Your task to perform on an android device: Open ESPN.com Image 0: 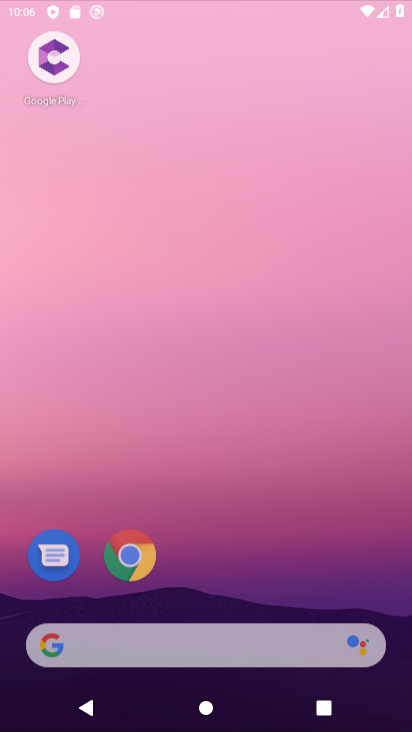
Step 0: click (36, 351)
Your task to perform on an android device: Open ESPN.com Image 1: 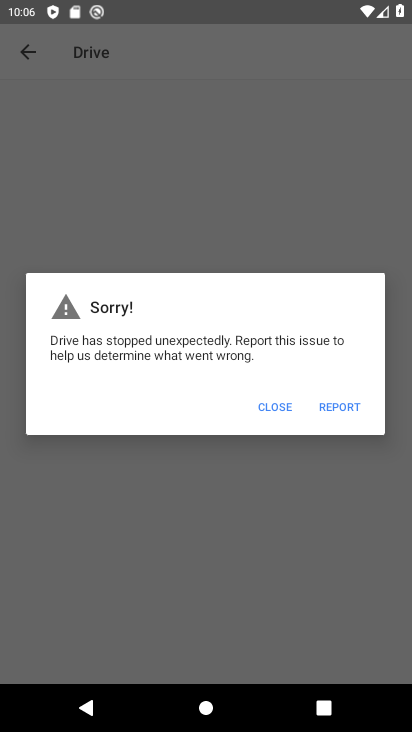
Step 1: press home button
Your task to perform on an android device: Open ESPN.com Image 2: 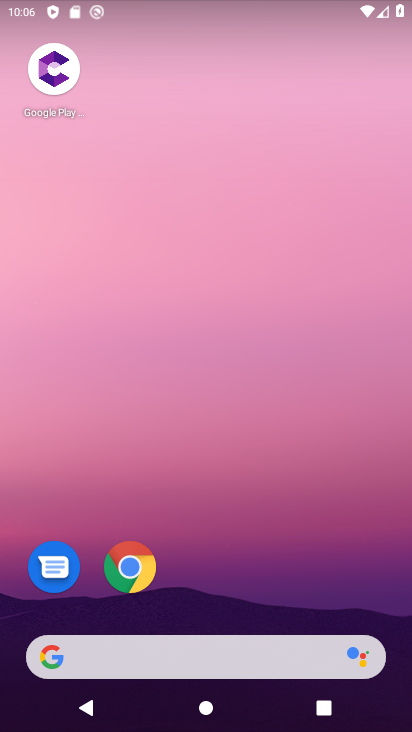
Step 2: click (145, 574)
Your task to perform on an android device: Open ESPN.com Image 3: 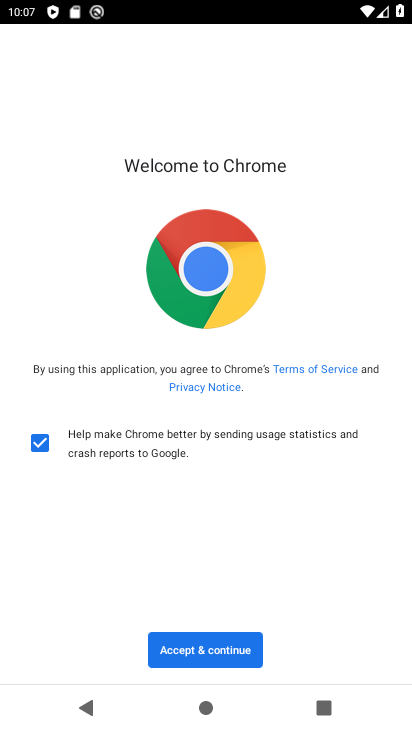
Step 3: click (211, 657)
Your task to perform on an android device: Open ESPN.com Image 4: 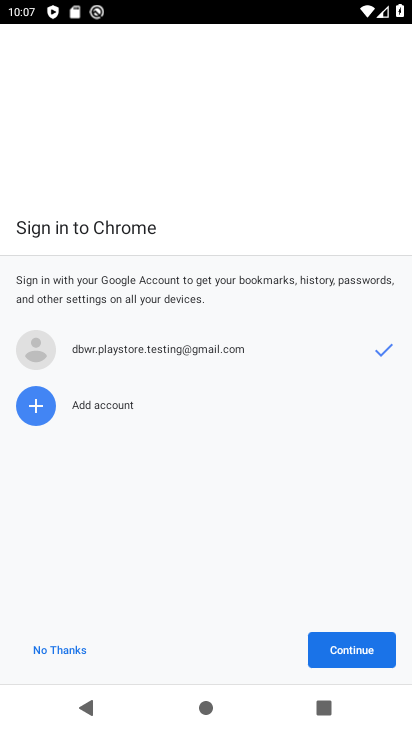
Step 4: click (355, 651)
Your task to perform on an android device: Open ESPN.com Image 5: 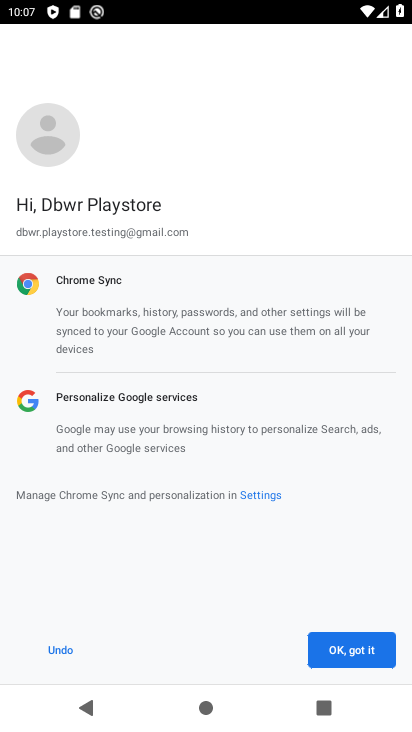
Step 5: click (340, 647)
Your task to perform on an android device: Open ESPN.com Image 6: 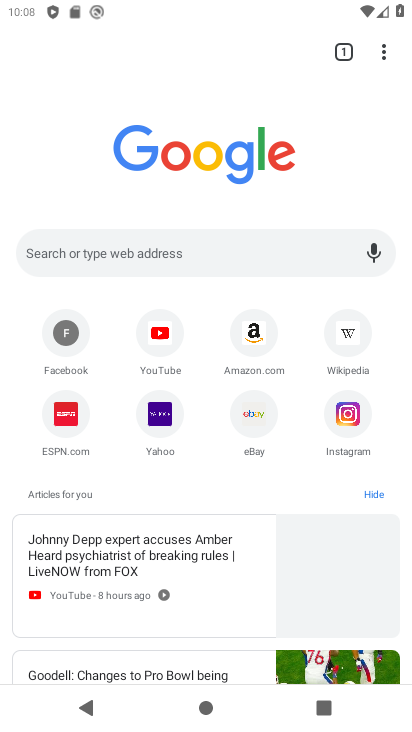
Step 6: click (75, 406)
Your task to perform on an android device: Open ESPN.com Image 7: 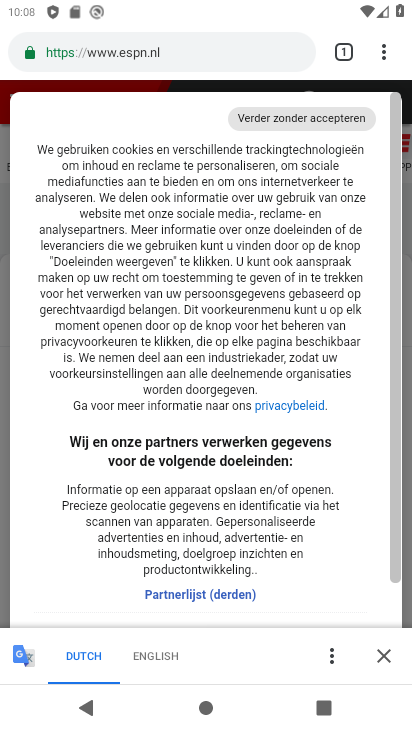
Step 7: task complete